Your task to perform on an android device: Check the news Image 0: 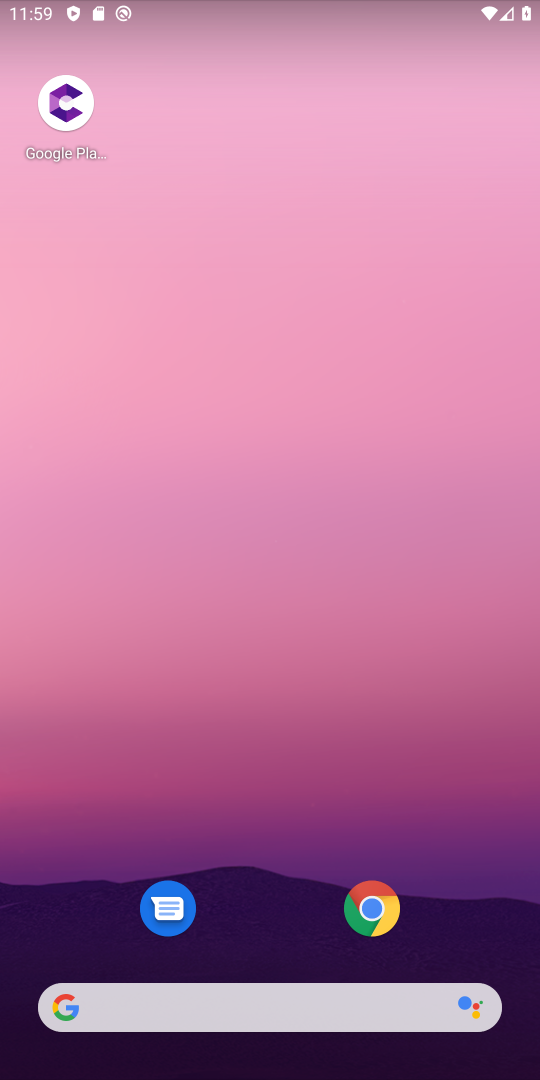
Step 0: drag from (299, 856) to (245, 205)
Your task to perform on an android device: Check the news Image 1: 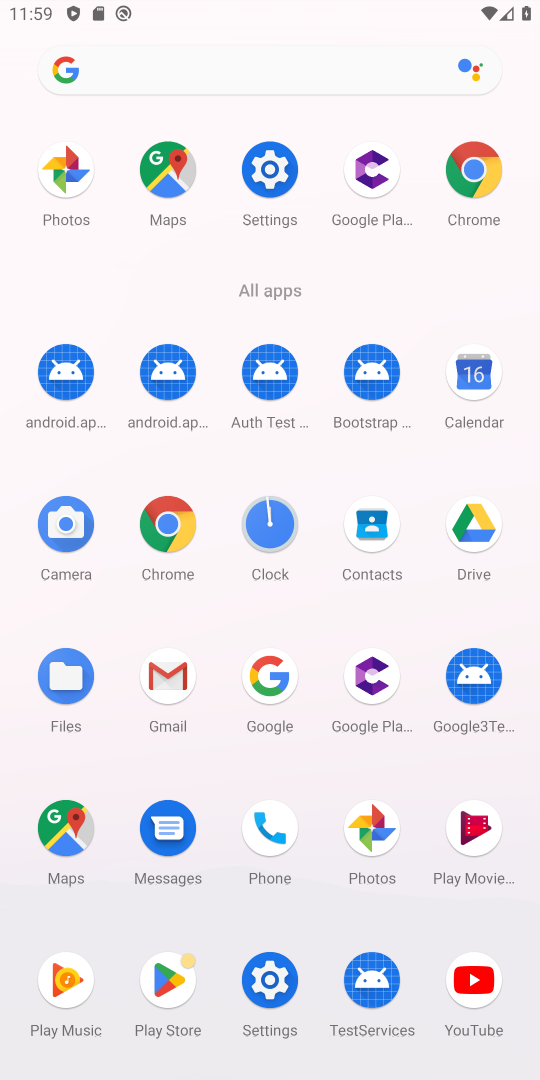
Step 1: click (270, 693)
Your task to perform on an android device: Check the news Image 2: 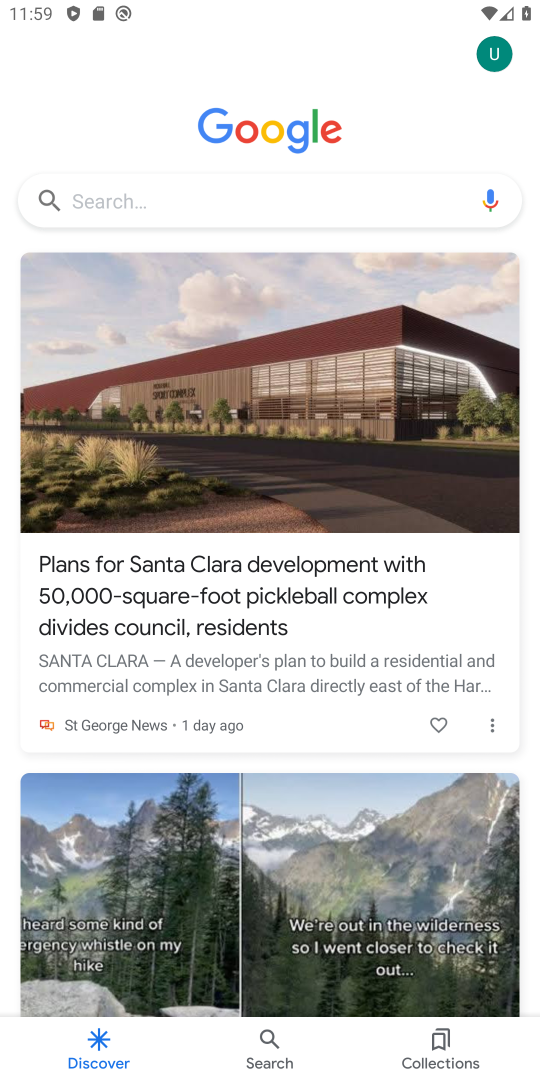
Step 2: click (137, 215)
Your task to perform on an android device: Check the news Image 3: 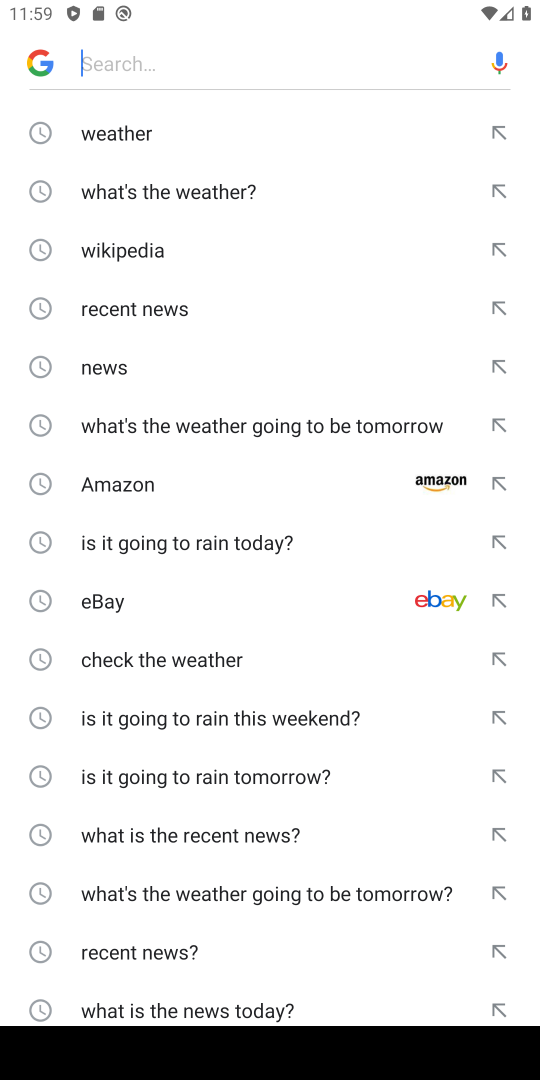
Step 3: click (136, 362)
Your task to perform on an android device: Check the news Image 4: 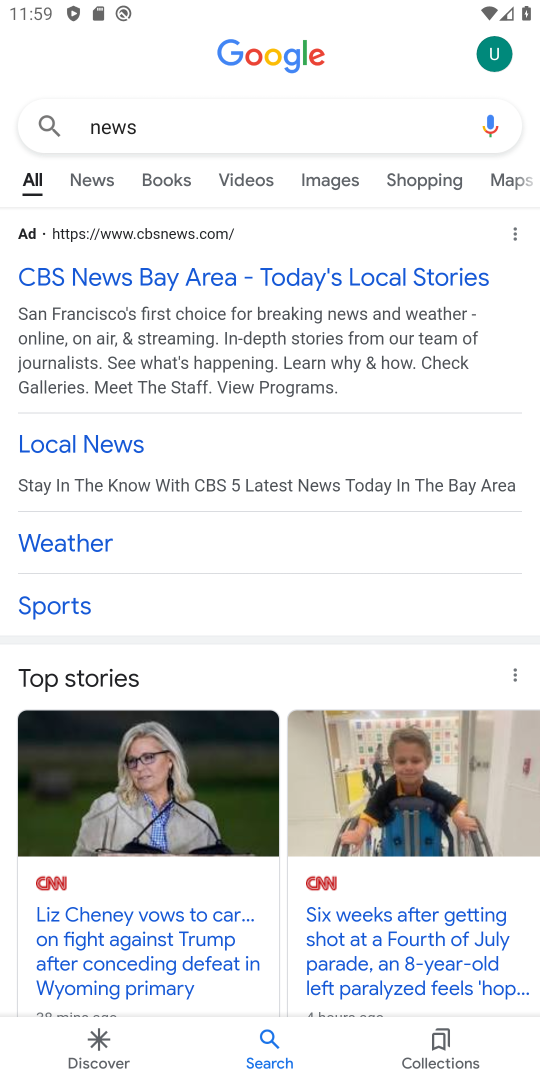
Step 4: click (107, 183)
Your task to perform on an android device: Check the news Image 5: 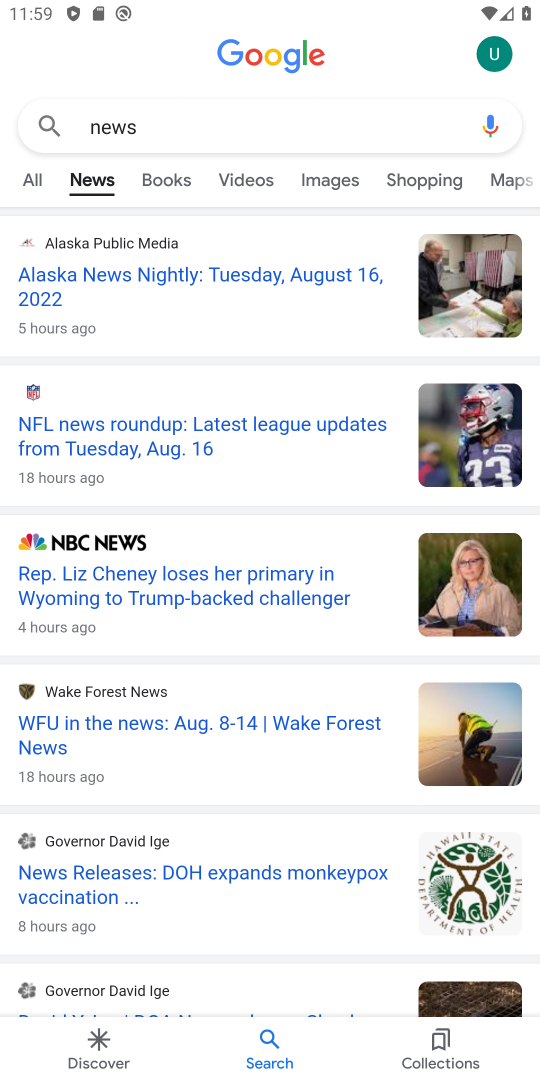
Step 5: task complete